Your task to perform on an android device: choose inbox layout in the gmail app Image 0: 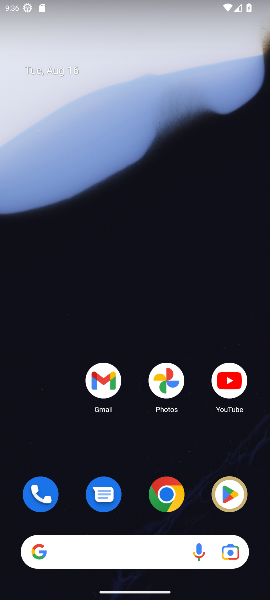
Step 0: drag from (216, 458) to (202, 11)
Your task to perform on an android device: choose inbox layout in the gmail app Image 1: 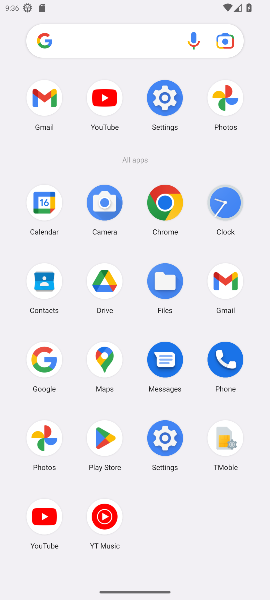
Step 1: click (219, 279)
Your task to perform on an android device: choose inbox layout in the gmail app Image 2: 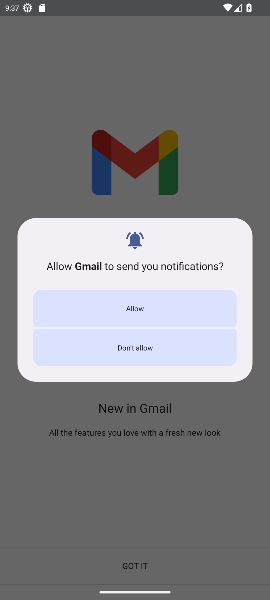
Step 2: click (170, 315)
Your task to perform on an android device: choose inbox layout in the gmail app Image 3: 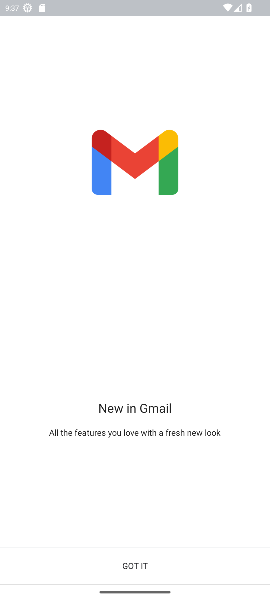
Step 3: click (135, 558)
Your task to perform on an android device: choose inbox layout in the gmail app Image 4: 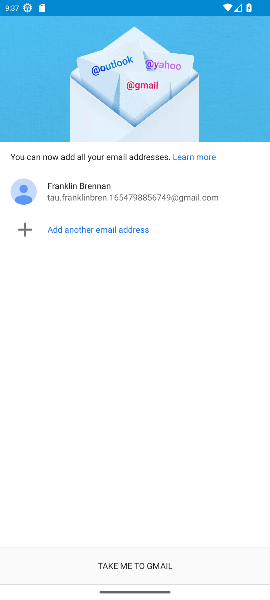
Step 4: click (133, 564)
Your task to perform on an android device: choose inbox layout in the gmail app Image 5: 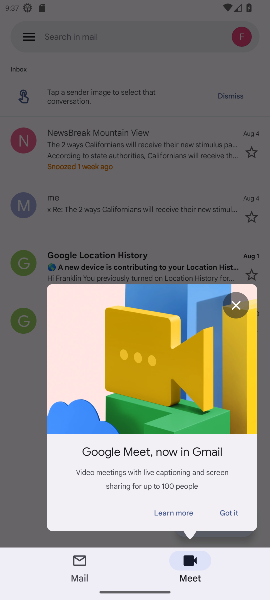
Step 5: click (236, 302)
Your task to perform on an android device: choose inbox layout in the gmail app Image 6: 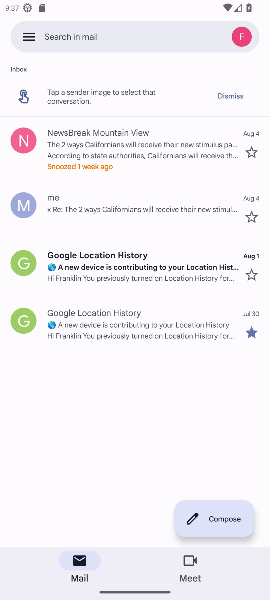
Step 6: click (33, 35)
Your task to perform on an android device: choose inbox layout in the gmail app Image 7: 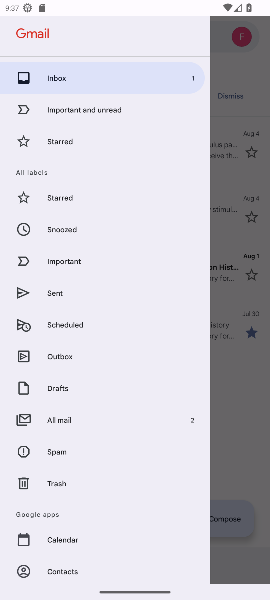
Step 7: drag from (80, 454) to (47, 122)
Your task to perform on an android device: choose inbox layout in the gmail app Image 8: 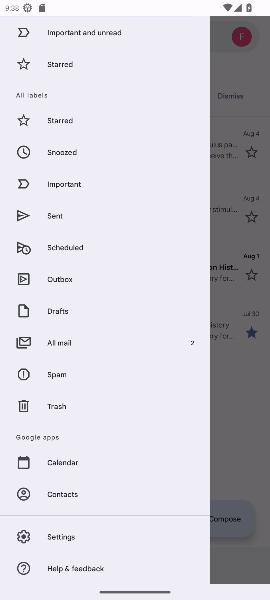
Step 8: click (61, 532)
Your task to perform on an android device: choose inbox layout in the gmail app Image 9: 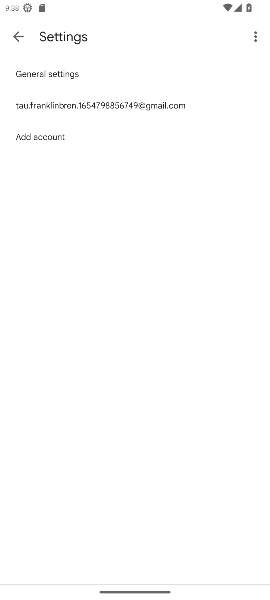
Step 9: click (126, 103)
Your task to perform on an android device: choose inbox layout in the gmail app Image 10: 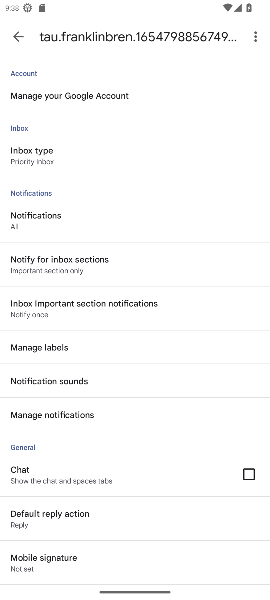
Step 10: drag from (174, 563) to (140, 128)
Your task to perform on an android device: choose inbox layout in the gmail app Image 11: 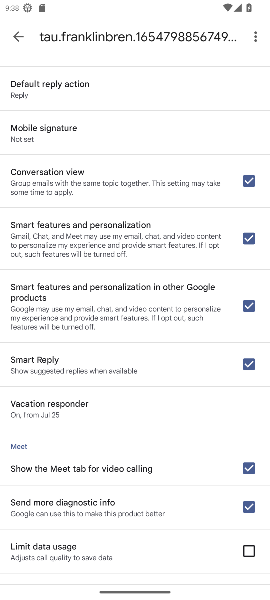
Step 11: drag from (111, 503) to (104, 130)
Your task to perform on an android device: choose inbox layout in the gmail app Image 12: 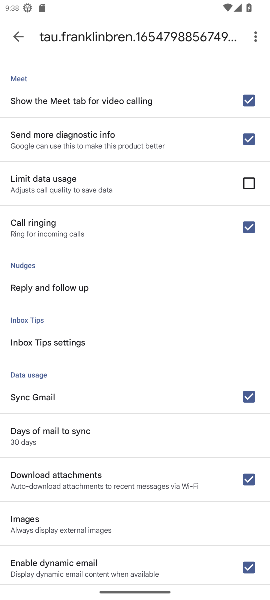
Step 12: drag from (134, 115) to (112, 580)
Your task to perform on an android device: choose inbox layout in the gmail app Image 13: 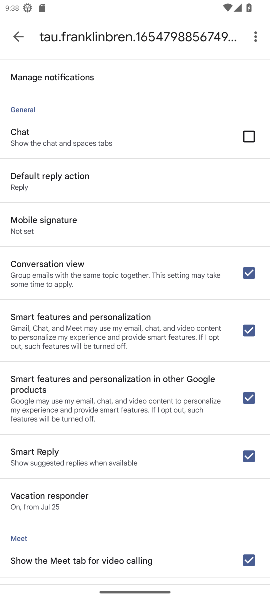
Step 13: drag from (78, 93) to (70, 471)
Your task to perform on an android device: choose inbox layout in the gmail app Image 14: 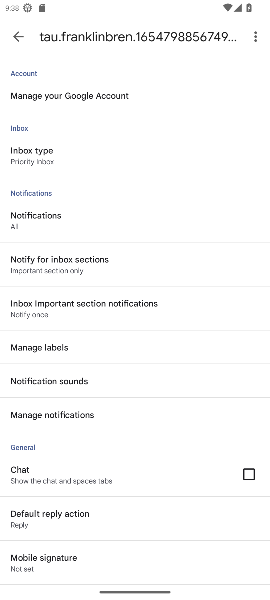
Step 14: click (23, 154)
Your task to perform on an android device: choose inbox layout in the gmail app Image 15: 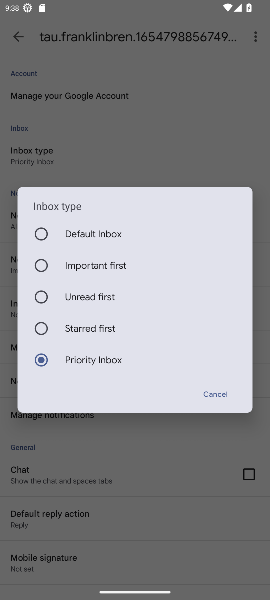
Step 15: click (82, 233)
Your task to perform on an android device: choose inbox layout in the gmail app Image 16: 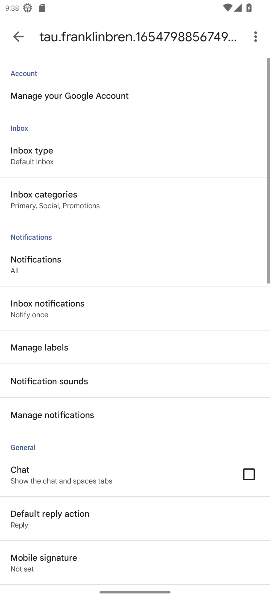
Step 16: task complete